Your task to perform on an android device: check data usage Image 0: 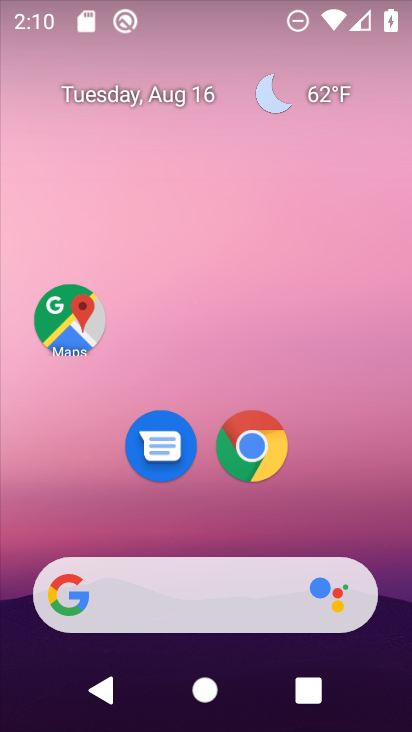
Step 0: press home button
Your task to perform on an android device: check data usage Image 1: 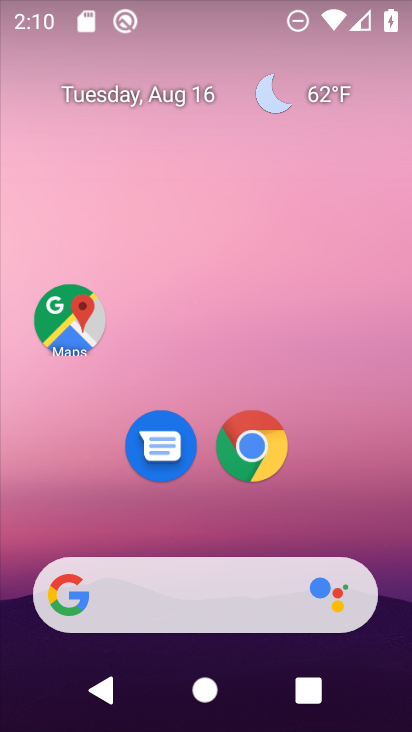
Step 1: drag from (207, 509) to (241, 0)
Your task to perform on an android device: check data usage Image 2: 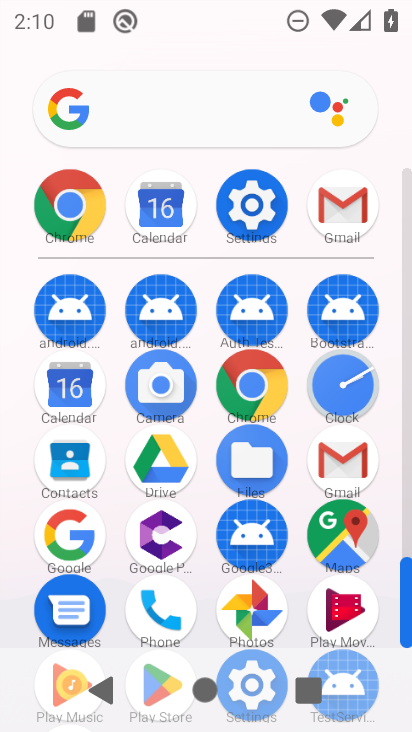
Step 2: click (253, 184)
Your task to perform on an android device: check data usage Image 3: 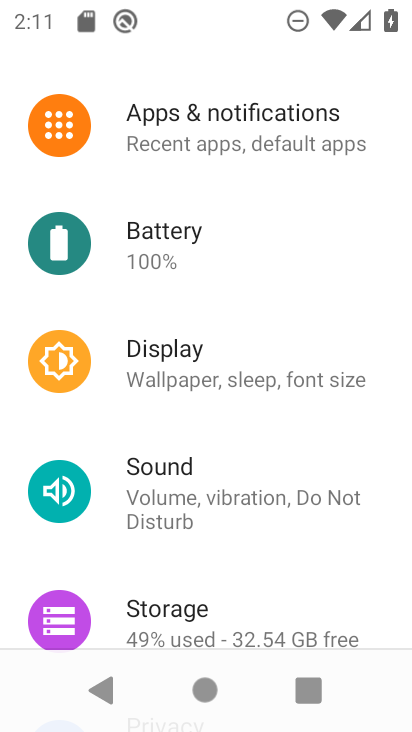
Step 3: drag from (150, 159) to (198, 724)
Your task to perform on an android device: check data usage Image 4: 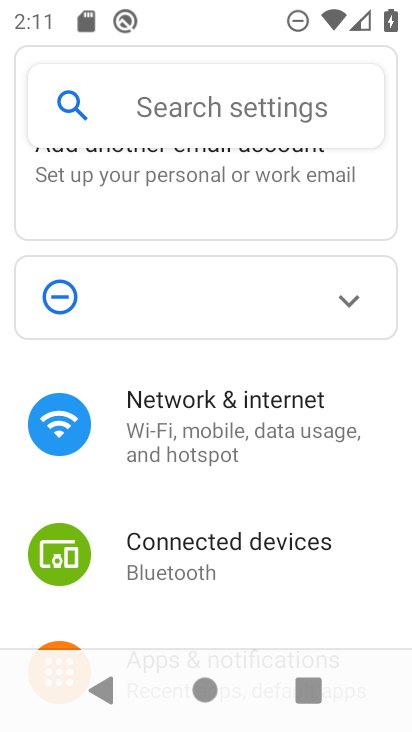
Step 4: click (179, 416)
Your task to perform on an android device: check data usage Image 5: 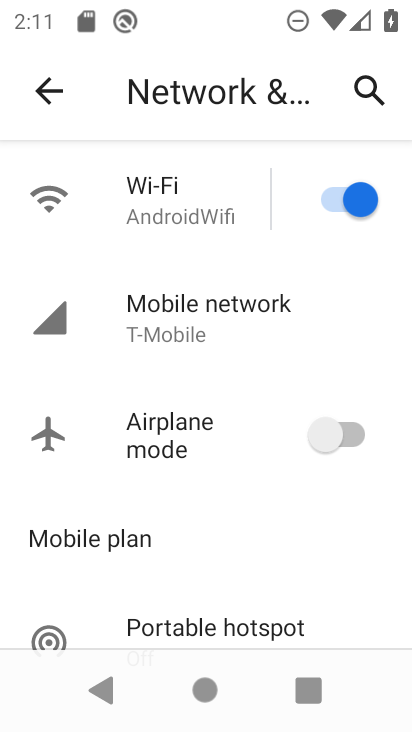
Step 5: click (219, 323)
Your task to perform on an android device: check data usage Image 6: 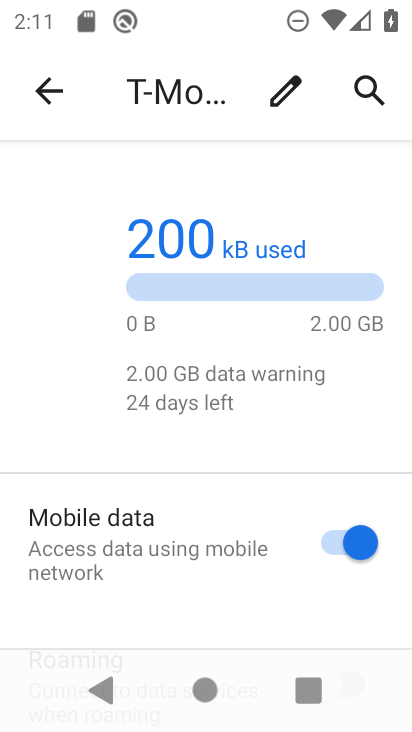
Step 6: drag from (191, 578) to (222, 45)
Your task to perform on an android device: check data usage Image 7: 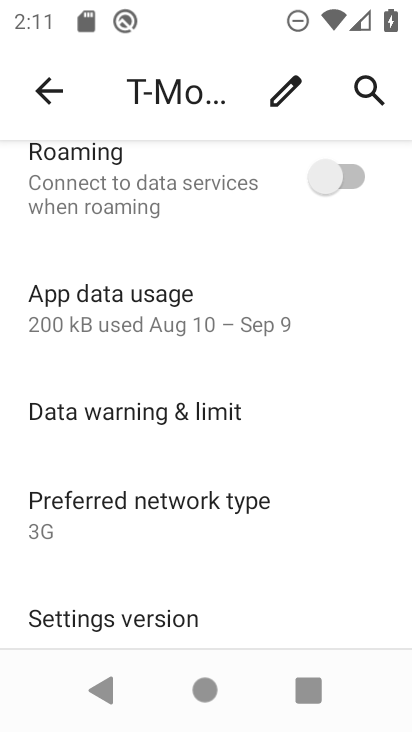
Step 7: click (148, 298)
Your task to perform on an android device: check data usage Image 8: 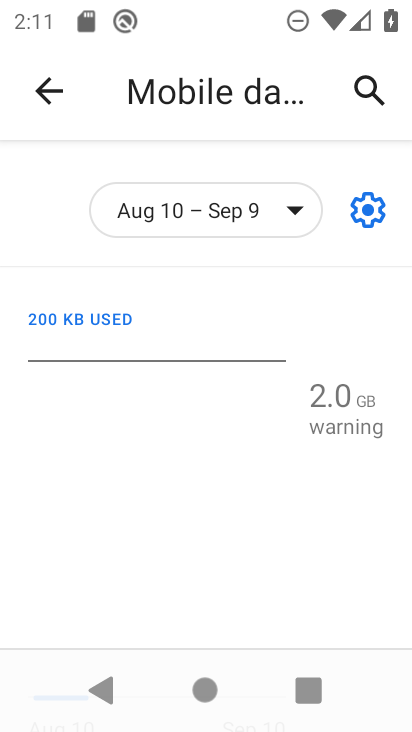
Step 8: task complete